Your task to perform on an android device: Go to sound settings Image 0: 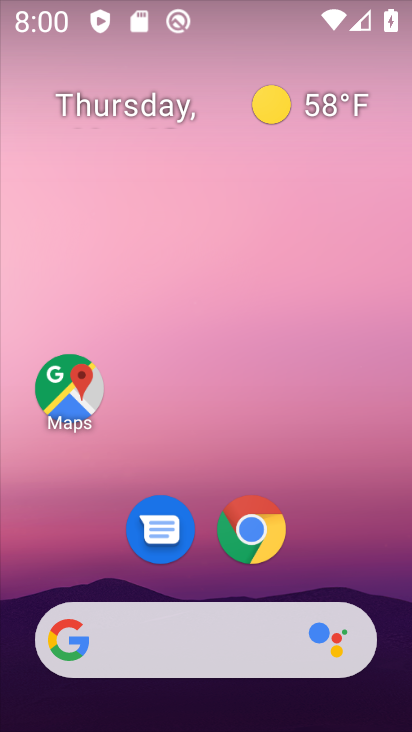
Step 0: drag from (196, 583) to (240, 73)
Your task to perform on an android device: Go to sound settings Image 1: 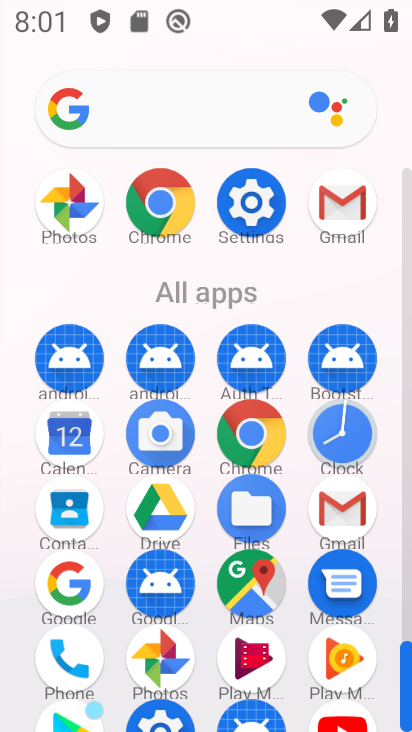
Step 1: click (255, 202)
Your task to perform on an android device: Go to sound settings Image 2: 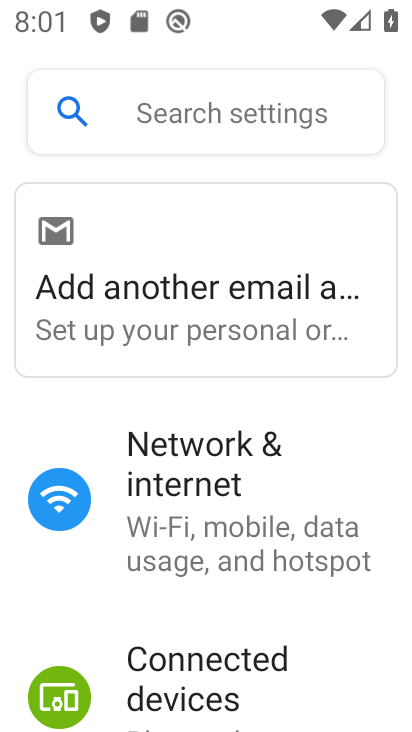
Step 2: drag from (150, 608) to (233, 125)
Your task to perform on an android device: Go to sound settings Image 3: 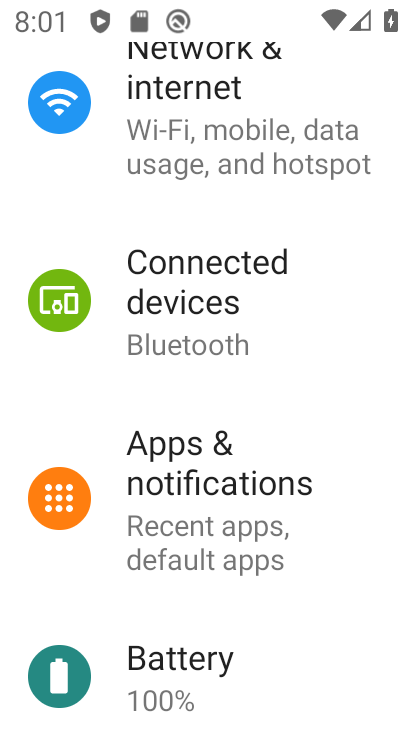
Step 3: drag from (203, 599) to (218, 183)
Your task to perform on an android device: Go to sound settings Image 4: 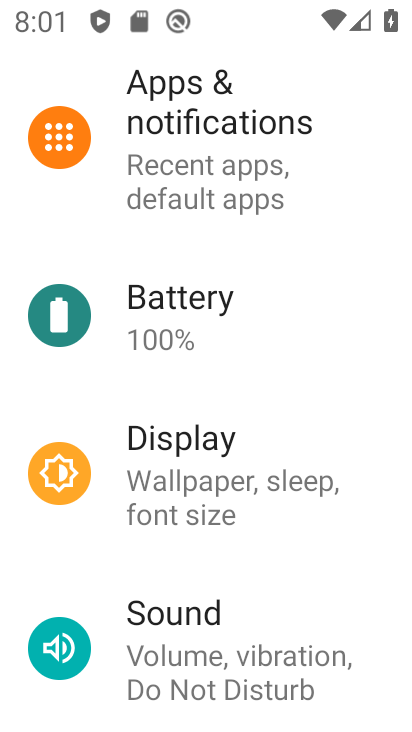
Step 4: click (171, 624)
Your task to perform on an android device: Go to sound settings Image 5: 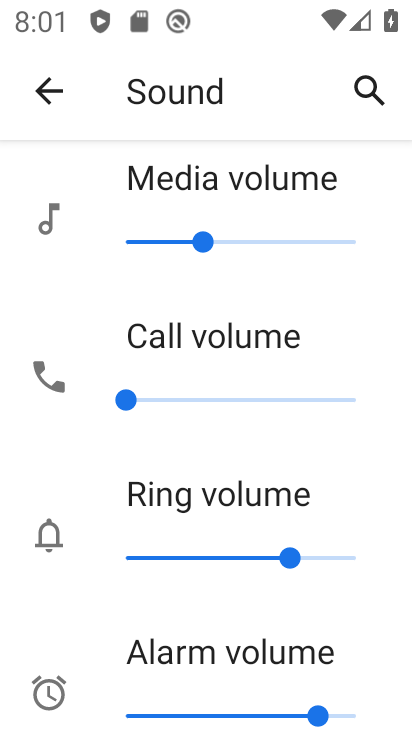
Step 5: task complete